Your task to perform on an android device: change notifications settings Image 0: 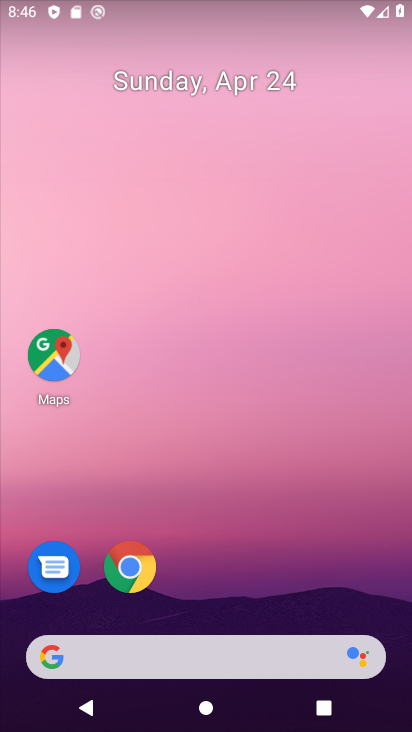
Step 0: drag from (308, 281) to (336, 77)
Your task to perform on an android device: change notifications settings Image 1: 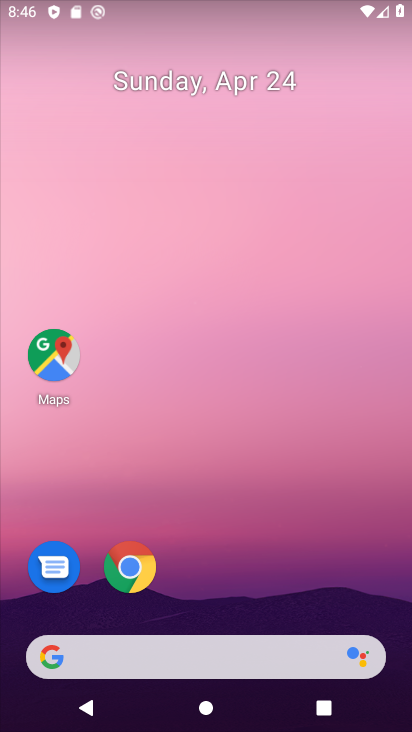
Step 1: drag from (323, 498) to (273, 6)
Your task to perform on an android device: change notifications settings Image 2: 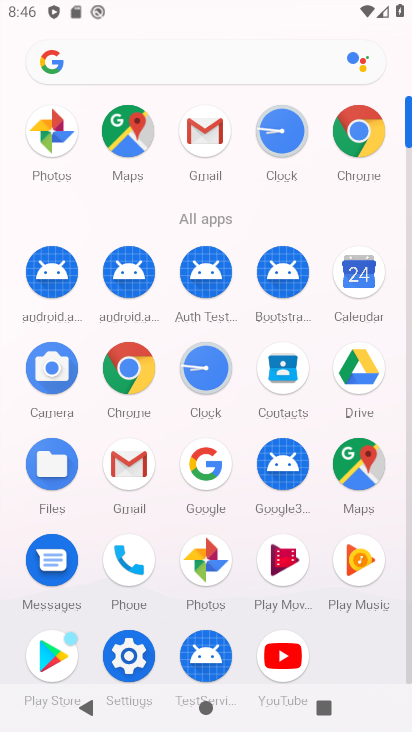
Step 2: click (129, 662)
Your task to perform on an android device: change notifications settings Image 3: 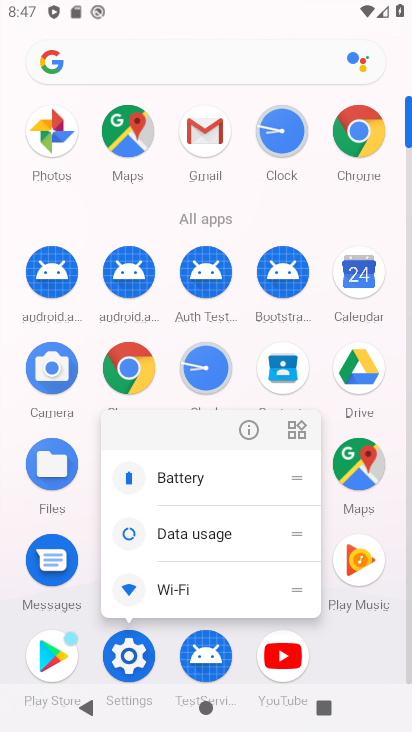
Step 3: click (138, 675)
Your task to perform on an android device: change notifications settings Image 4: 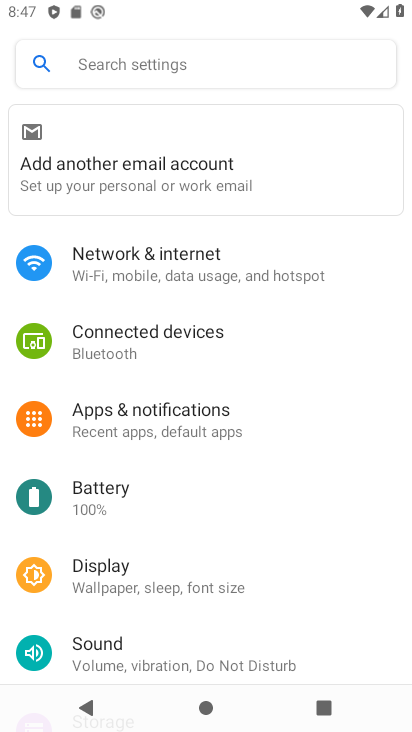
Step 4: click (209, 414)
Your task to perform on an android device: change notifications settings Image 5: 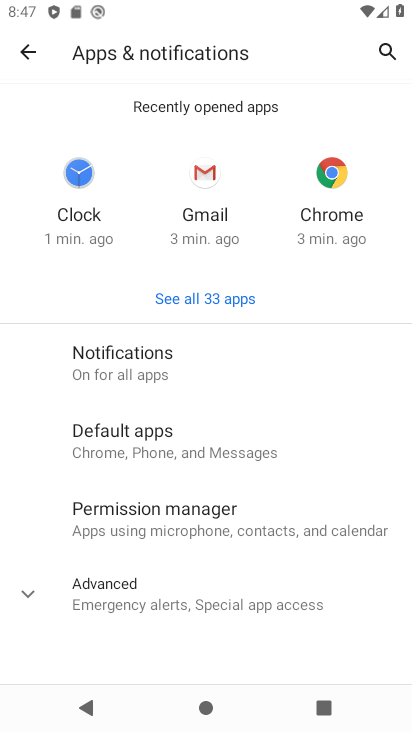
Step 5: click (113, 353)
Your task to perform on an android device: change notifications settings Image 6: 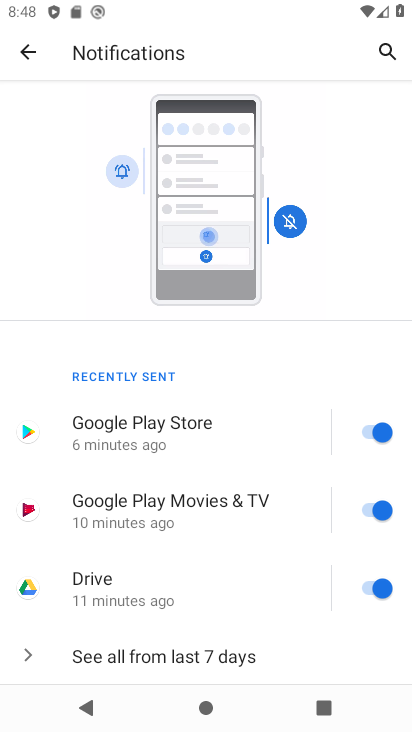
Step 6: click (363, 429)
Your task to perform on an android device: change notifications settings Image 7: 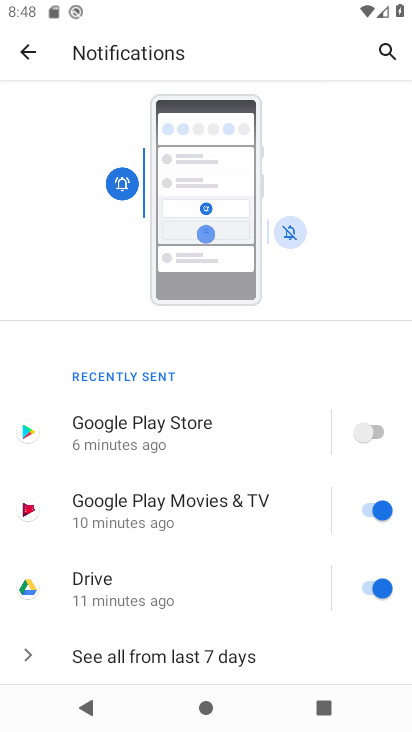
Step 7: task complete